Your task to perform on an android device: Clear the cart on ebay.com. Add logitech g502 to the cart on ebay.com, then select checkout. Image 0: 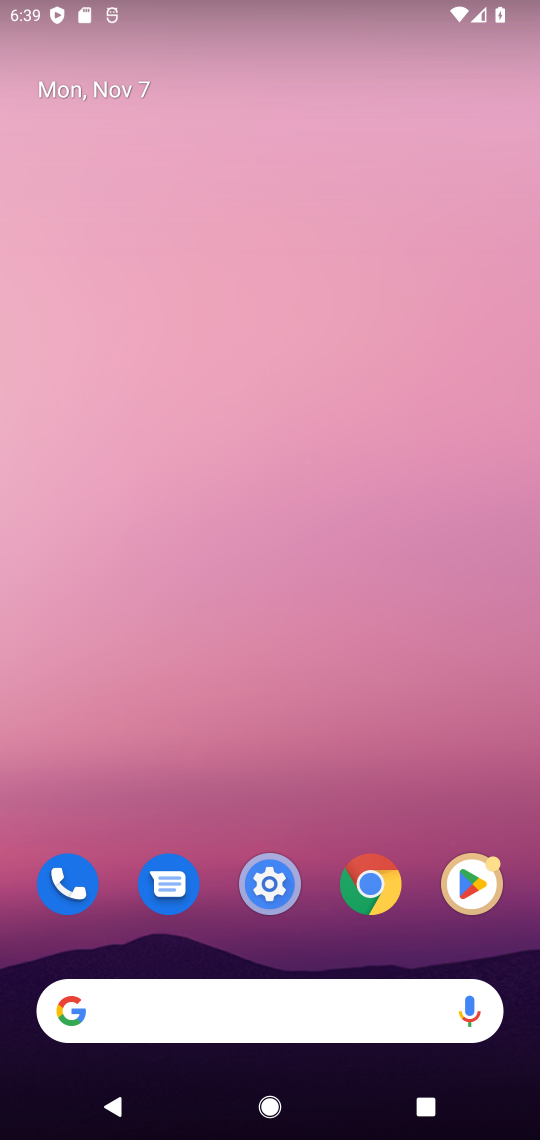
Step 0: click (365, 874)
Your task to perform on an android device: Clear the cart on ebay.com. Add logitech g502 to the cart on ebay.com, then select checkout. Image 1: 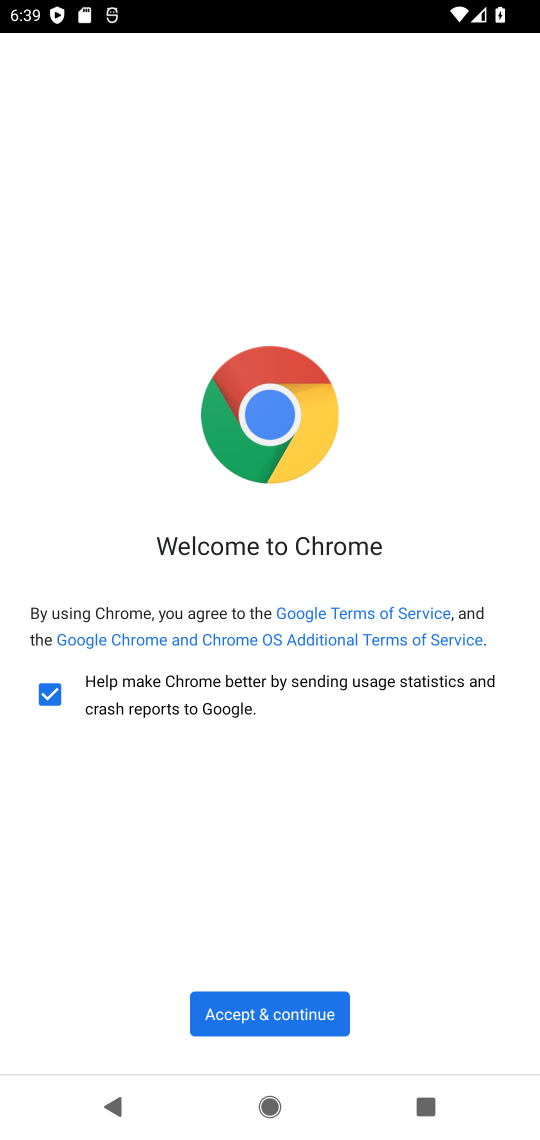
Step 1: click (289, 1006)
Your task to perform on an android device: Clear the cart on ebay.com. Add logitech g502 to the cart on ebay.com, then select checkout. Image 2: 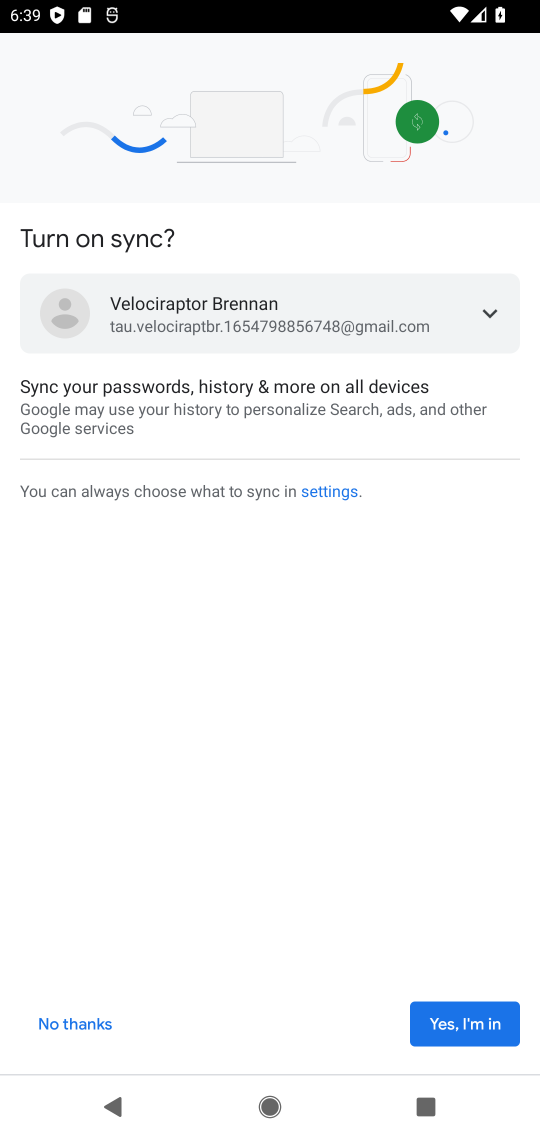
Step 2: click (505, 1022)
Your task to perform on an android device: Clear the cart on ebay.com. Add logitech g502 to the cart on ebay.com, then select checkout. Image 3: 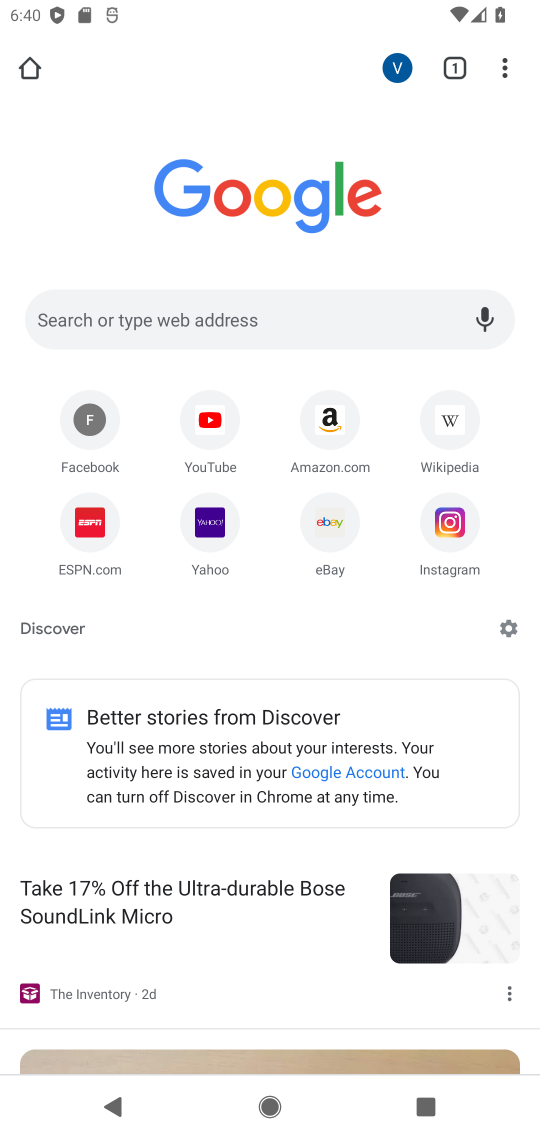
Step 3: click (330, 523)
Your task to perform on an android device: Clear the cart on ebay.com. Add logitech g502 to the cart on ebay.com, then select checkout. Image 4: 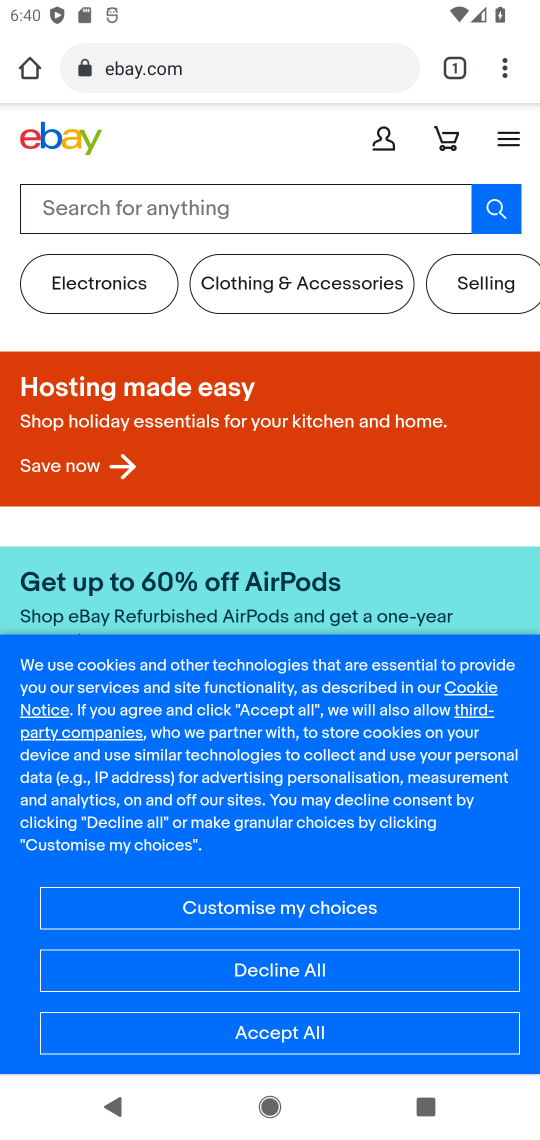
Step 4: click (289, 977)
Your task to perform on an android device: Clear the cart on ebay.com. Add logitech g502 to the cart on ebay.com, then select checkout. Image 5: 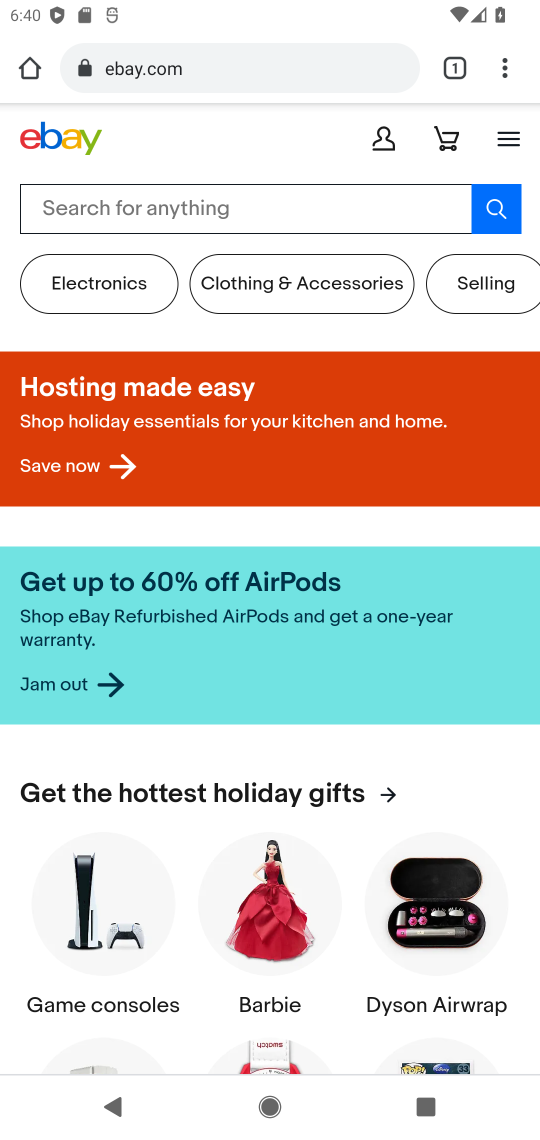
Step 5: click (248, 199)
Your task to perform on an android device: Clear the cart on ebay.com. Add logitech g502 to the cart on ebay.com, then select checkout. Image 6: 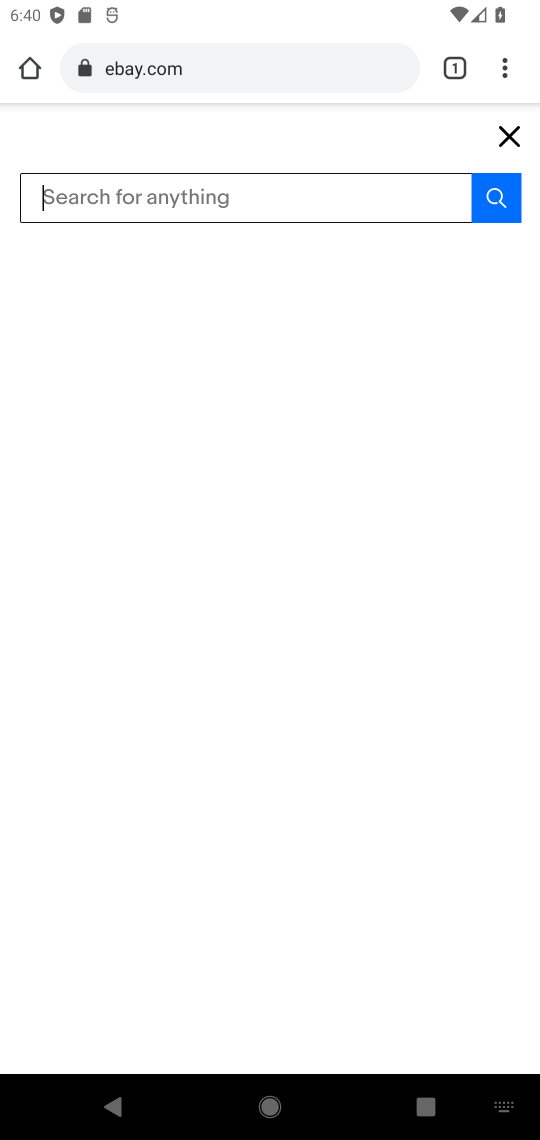
Step 6: type "logitech g502"
Your task to perform on an android device: Clear the cart on ebay.com. Add logitech g502 to the cart on ebay.com, then select checkout. Image 7: 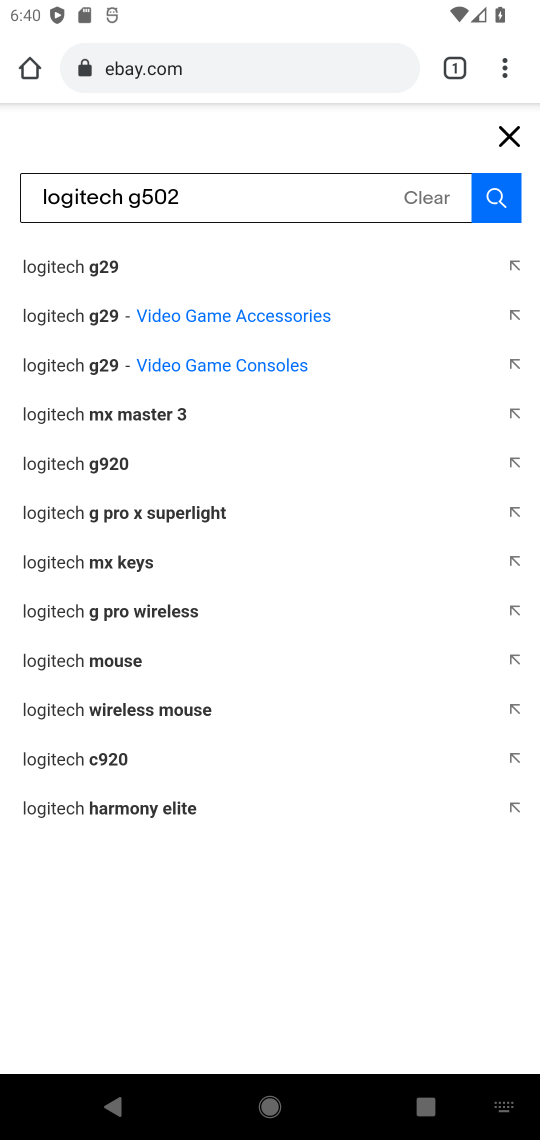
Step 7: click (498, 195)
Your task to perform on an android device: Clear the cart on ebay.com. Add logitech g502 to the cart on ebay.com, then select checkout. Image 8: 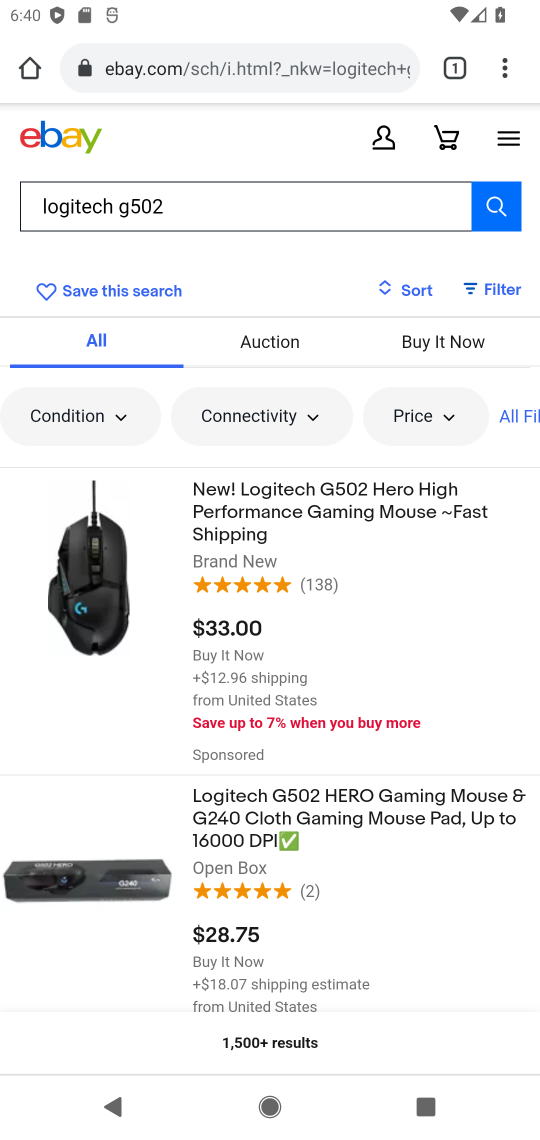
Step 8: click (257, 507)
Your task to perform on an android device: Clear the cart on ebay.com. Add logitech g502 to the cart on ebay.com, then select checkout. Image 9: 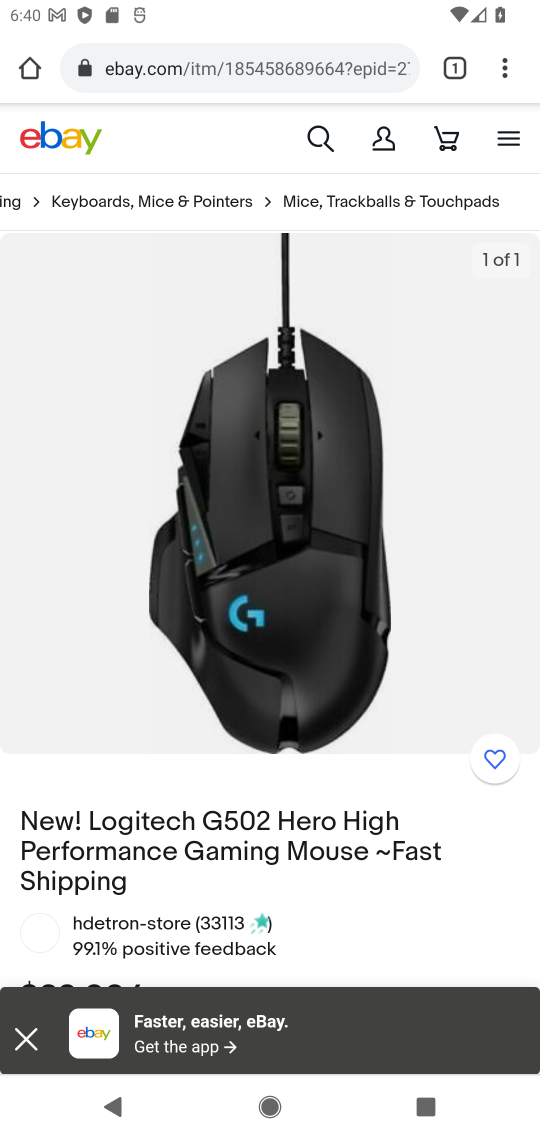
Step 9: click (23, 1040)
Your task to perform on an android device: Clear the cart on ebay.com. Add logitech g502 to the cart on ebay.com, then select checkout. Image 10: 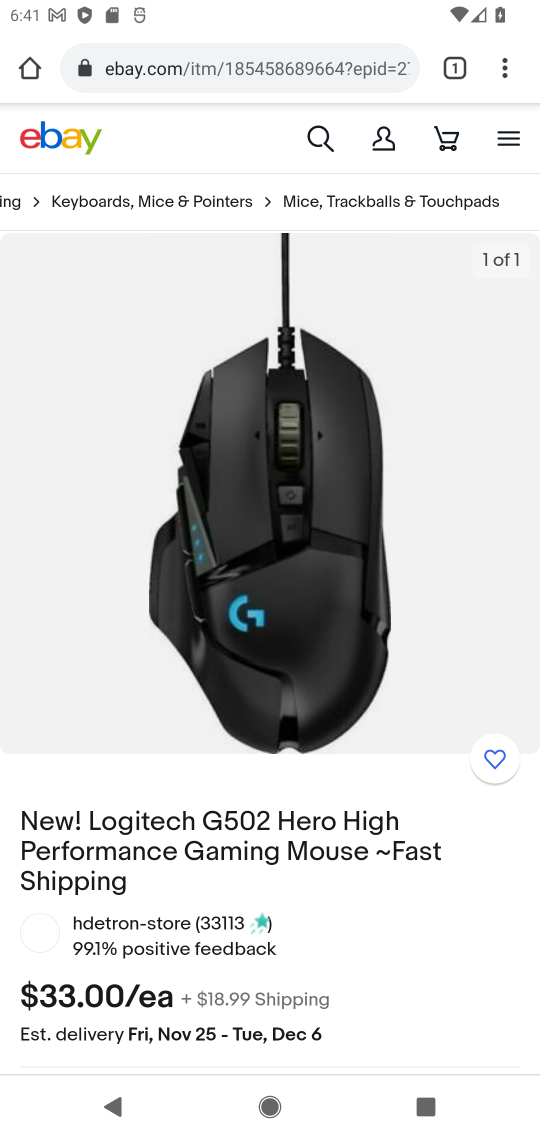
Step 10: drag from (375, 910) to (388, 342)
Your task to perform on an android device: Clear the cart on ebay.com. Add logitech g502 to the cart on ebay.com, then select checkout. Image 11: 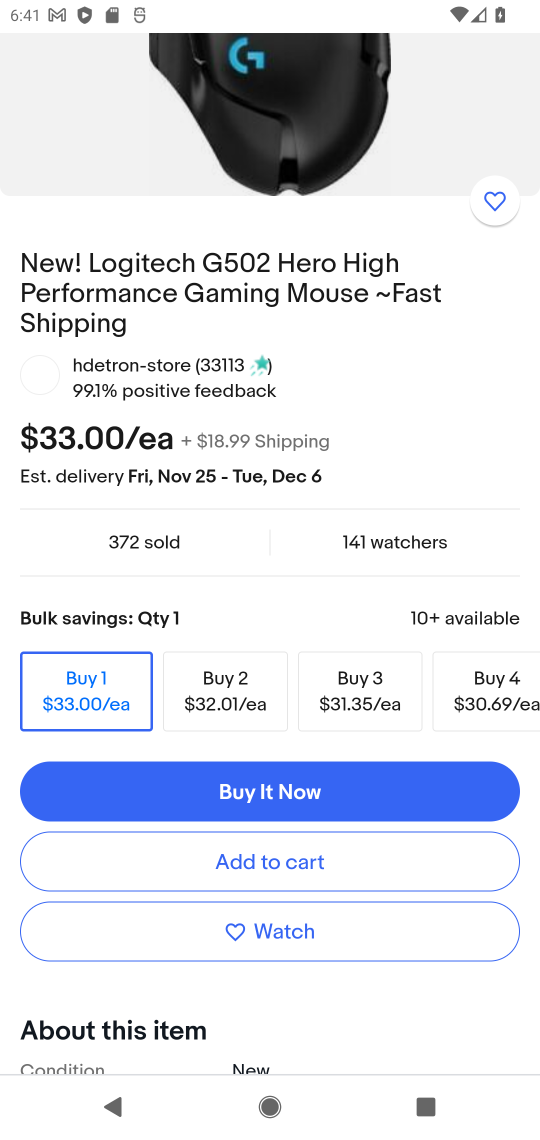
Step 11: click (295, 864)
Your task to perform on an android device: Clear the cart on ebay.com. Add logitech g502 to the cart on ebay.com, then select checkout. Image 12: 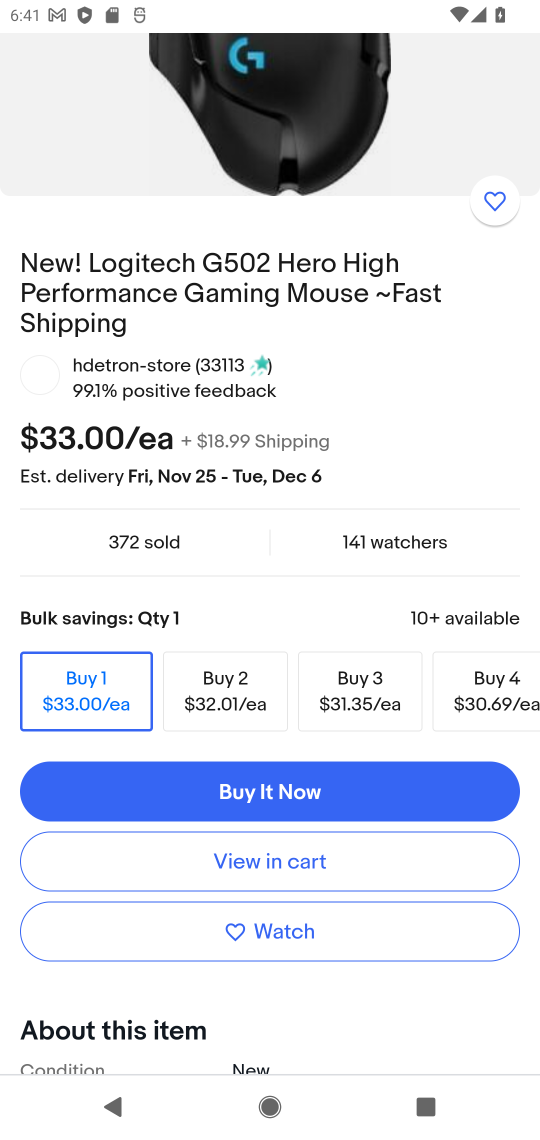
Step 12: click (306, 869)
Your task to perform on an android device: Clear the cart on ebay.com. Add logitech g502 to the cart on ebay.com, then select checkout. Image 13: 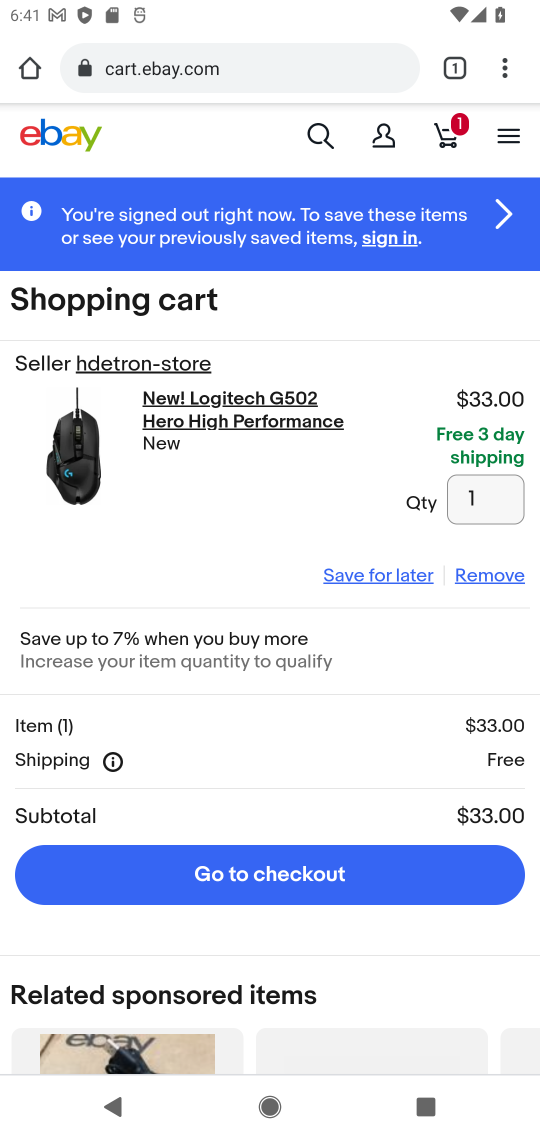
Step 13: click (307, 868)
Your task to perform on an android device: Clear the cart on ebay.com. Add logitech g502 to the cart on ebay.com, then select checkout. Image 14: 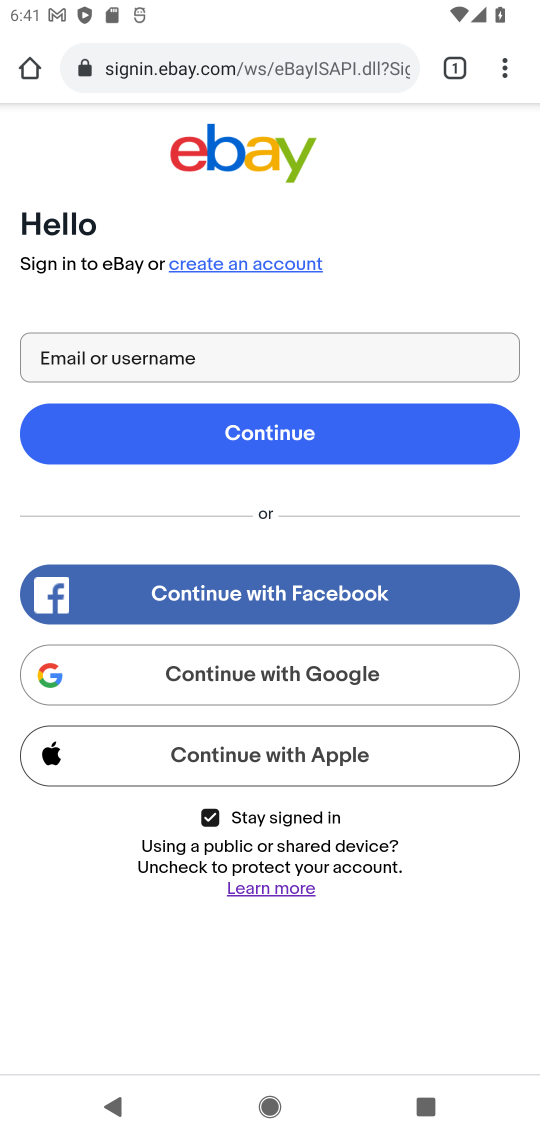
Step 14: task complete